Your task to perform on an android device: search for starred emails in the gmail app Image 0: 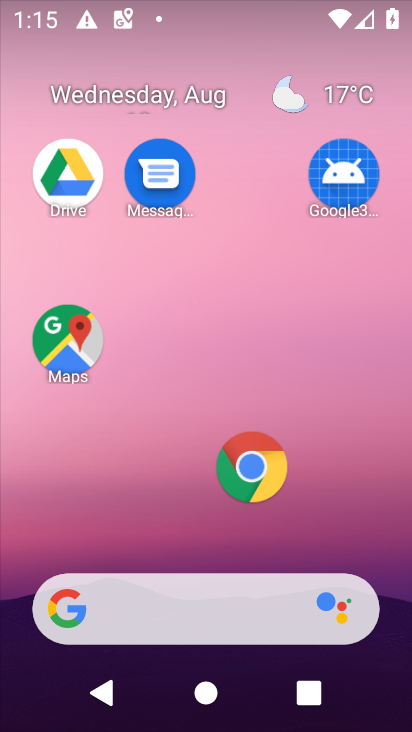
Step 0: drag from (189, 555) to (219, 104)
Your task to perform on an android device: search for starred emails in the gmail app Image 1: 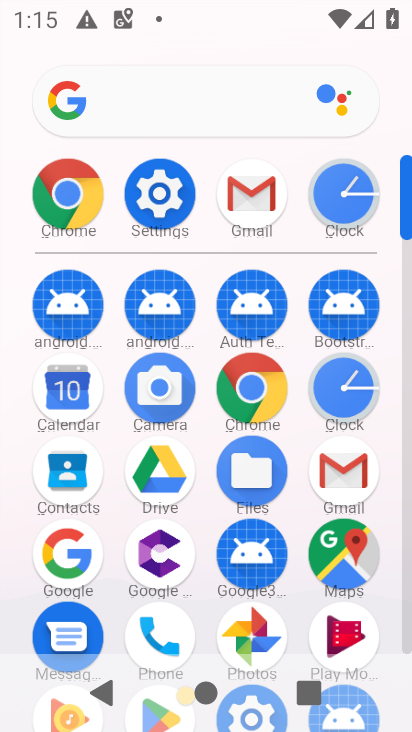
Step 1: click (226, 183)
Your task to perform on an android device: search for starred emails in the gmail app Image 2: 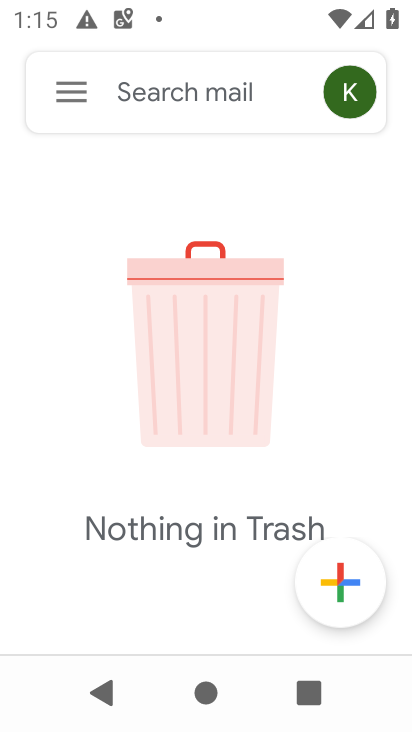
Step 2: click (86, 90)
Your task to perform on an android device: search for starred emails in the gmail app Image 3: 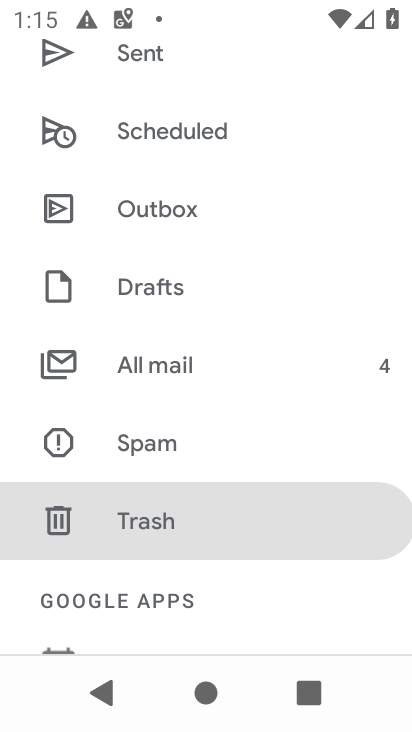
Step 3: drag from (300, 244) to (259, 630)
Your task to perform on an android device: search for starred emails in the gmail app Image 4: 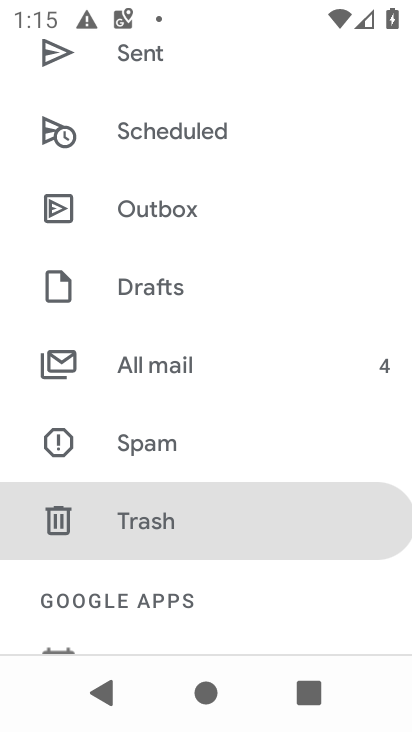
Step 4: drag from (235, 70) to (240, 598)
Your task to perform on an android device: search for starred emails in the gmail app Image 5: 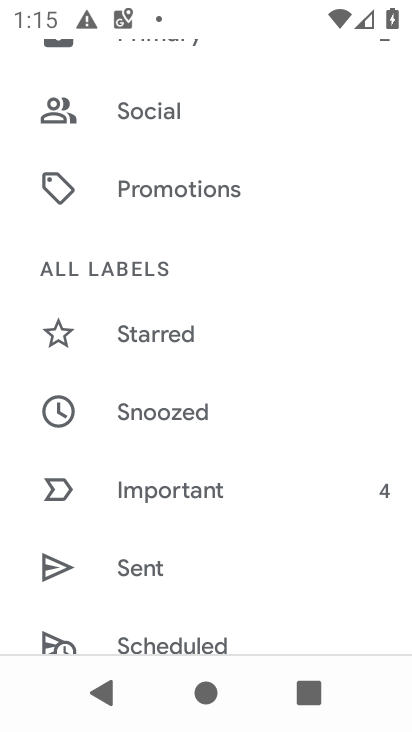
Step 5: click (183, 348)
Your task to perform on an android device: search for starred emails in the gmail app Image 6: 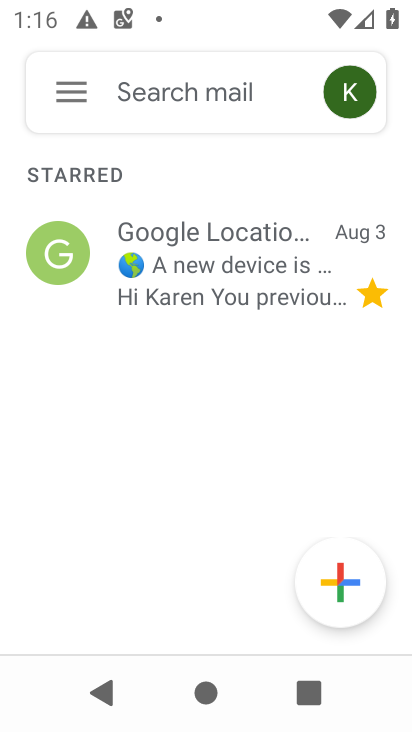
Step 6: task complete